Your task to perform on an android device: change the clock display to show seconds Image 0: 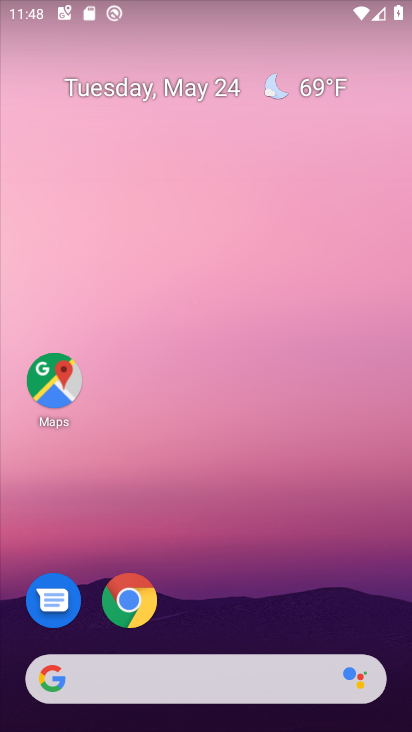
Step 0: drag from (343, 624) to (398, 267)
Your task to perform on an android device: change the clock display to show seconds Image 1: 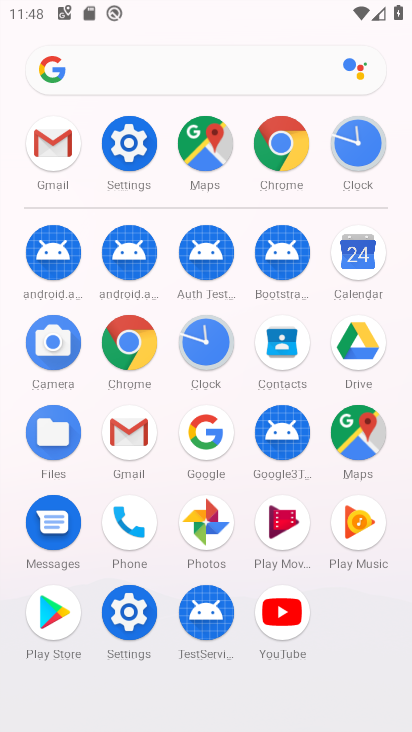
Step 1: click (215, 356)
Your task to perform on an android device: change the clock display to show seconds Image 2: 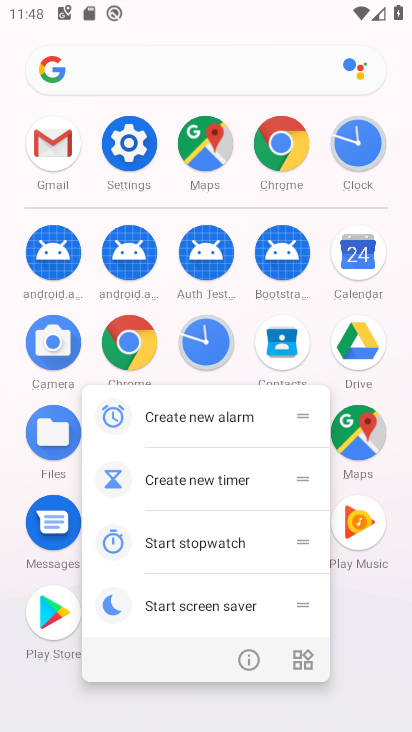
Step 2: click (215, 356)
Your task to perform on an android device: change the clock display to show seconds Image 3: 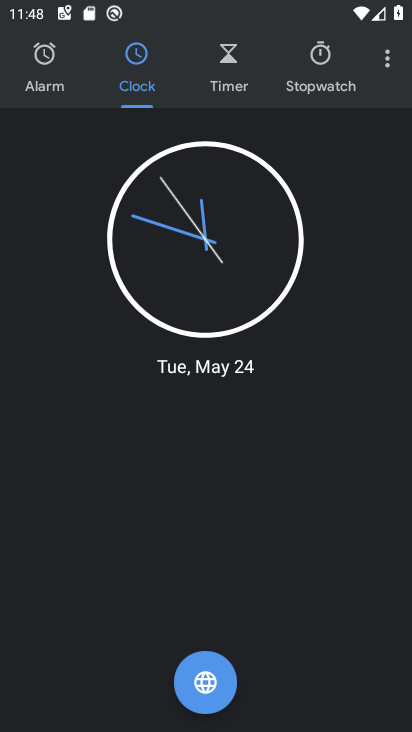
Step 3: click (385, 69)
Your task to perform on an android device: change the clock display to show seconds Image 4: 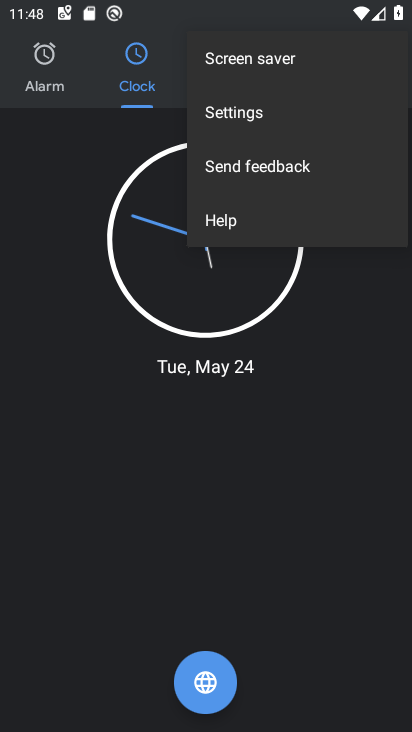
Step 4: click (279, 128)
Your task to perform on an android device: change the clock display to show seconds Image 5: 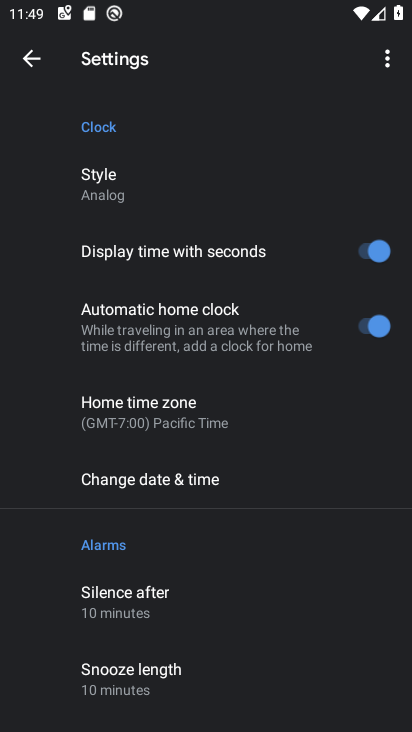
Step 5: task complete